Your task to perform on an android device: Open settings on Google Maps Image 0: 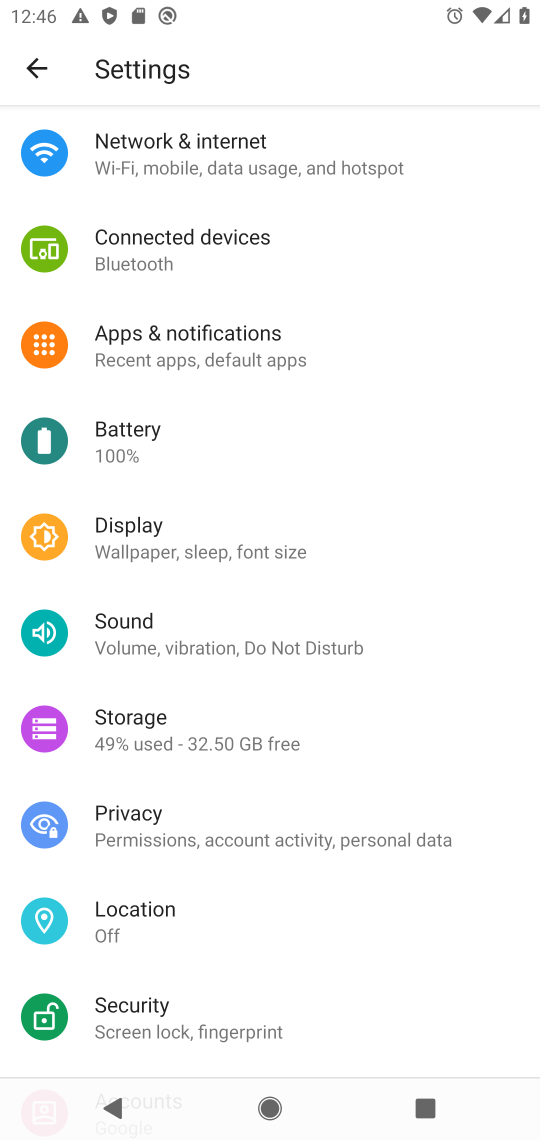
Step 0: press home button
Your task to perform on an android device: Open settings on Google Maps Image 1: 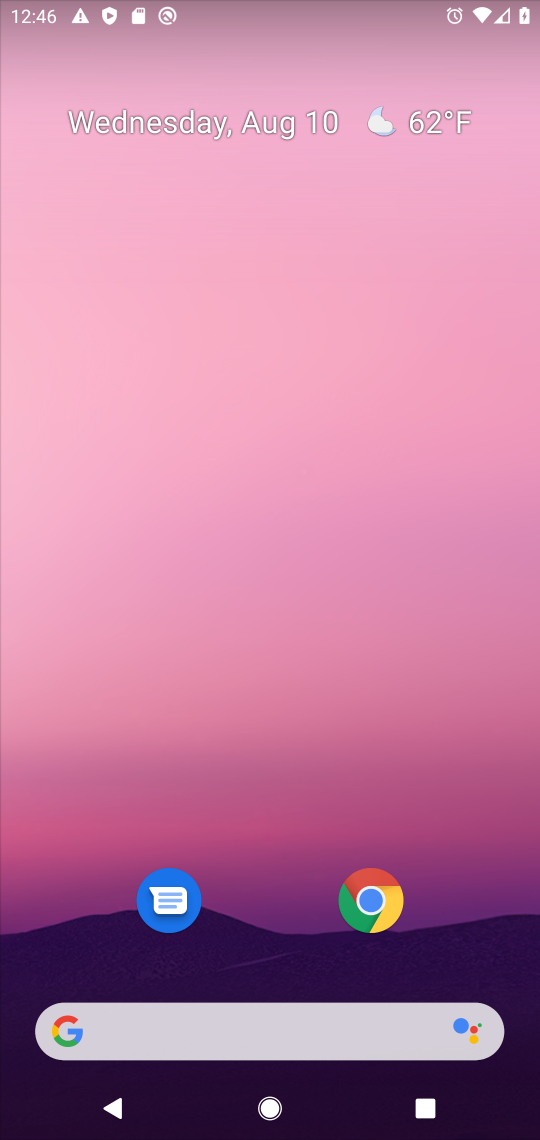
Step 1: drag from (290, 929) to (309, 0)
Your task to perform on an android device: Open settings on Google Maps Image 2: 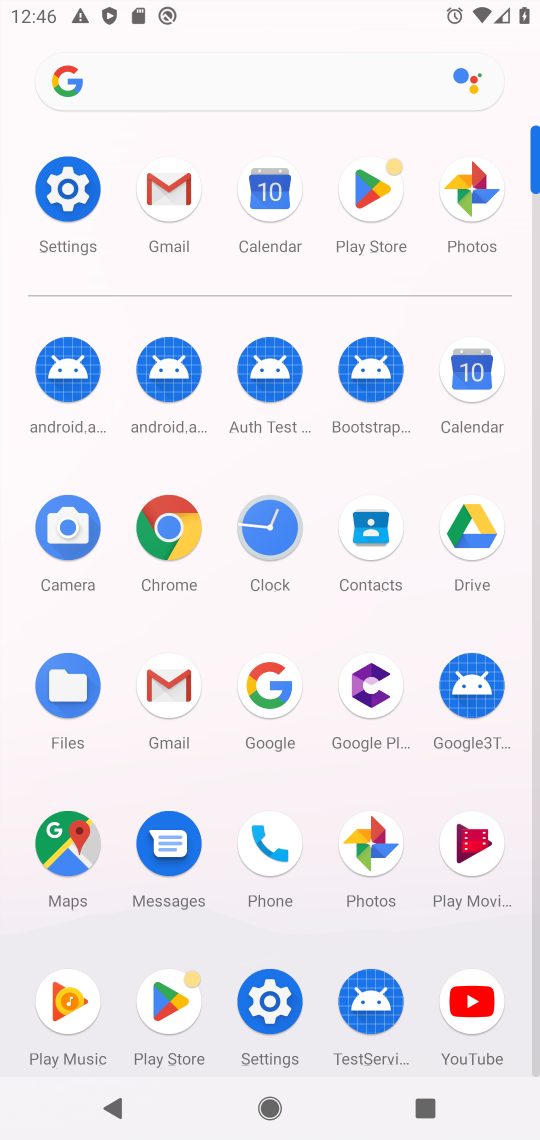
Step 2: drag from (323, 598) to (333, 147)
Your task to perform on an android device: Open settings on Google Maps Image 3: 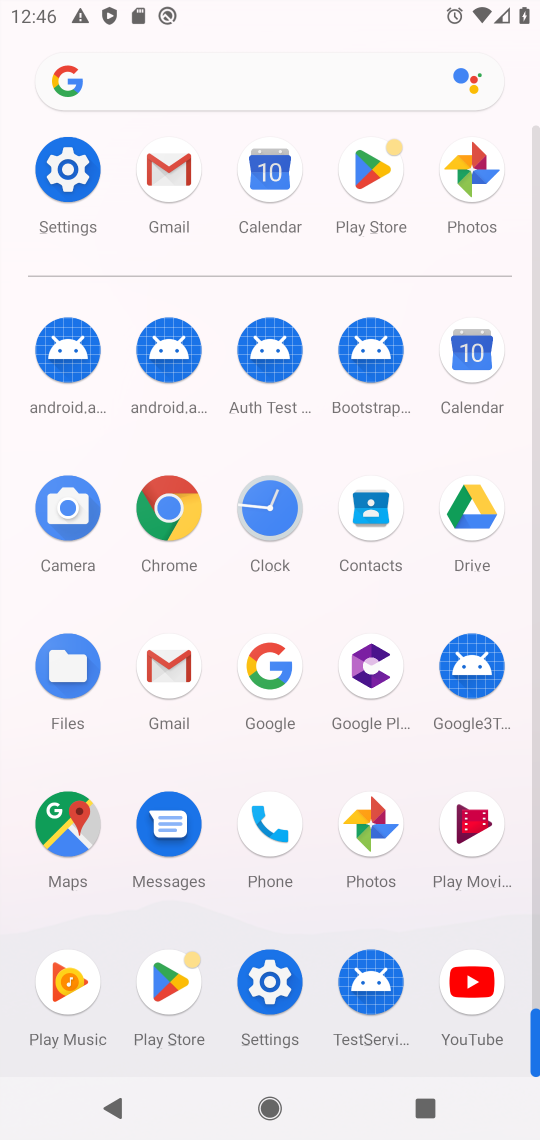
Step 3: click (70, 822)
Your task to perform on an android device: Open settings on Google Maps Image 4: 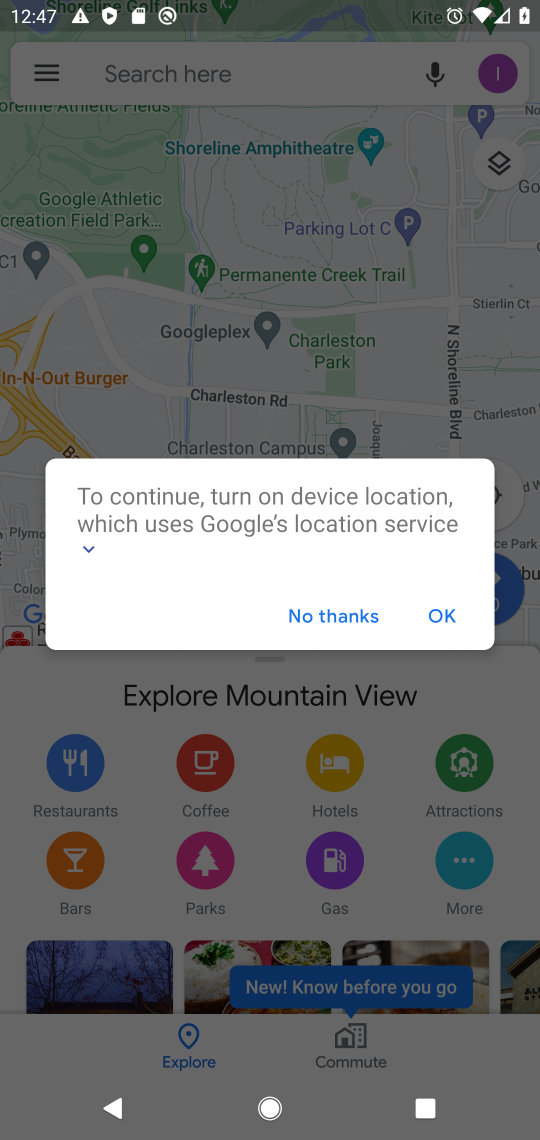
Step 4: click (434, 614)
Your task to perform on an android device: Open settings on Google Maps Image 5: 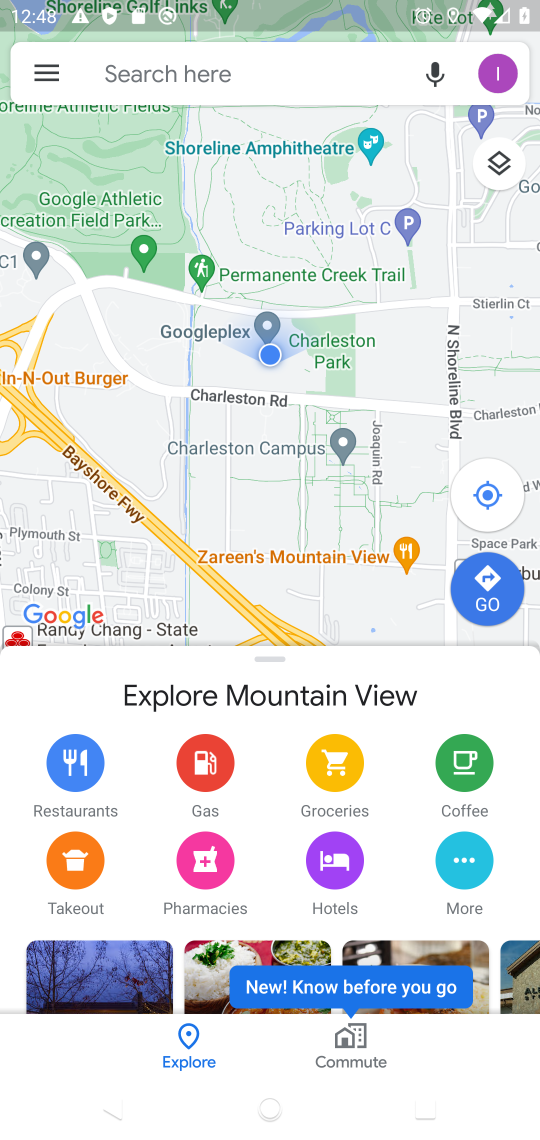
Step 5: click (53, 71)
Your task to perform on an android device: Open settings on Google Maps Image 6: 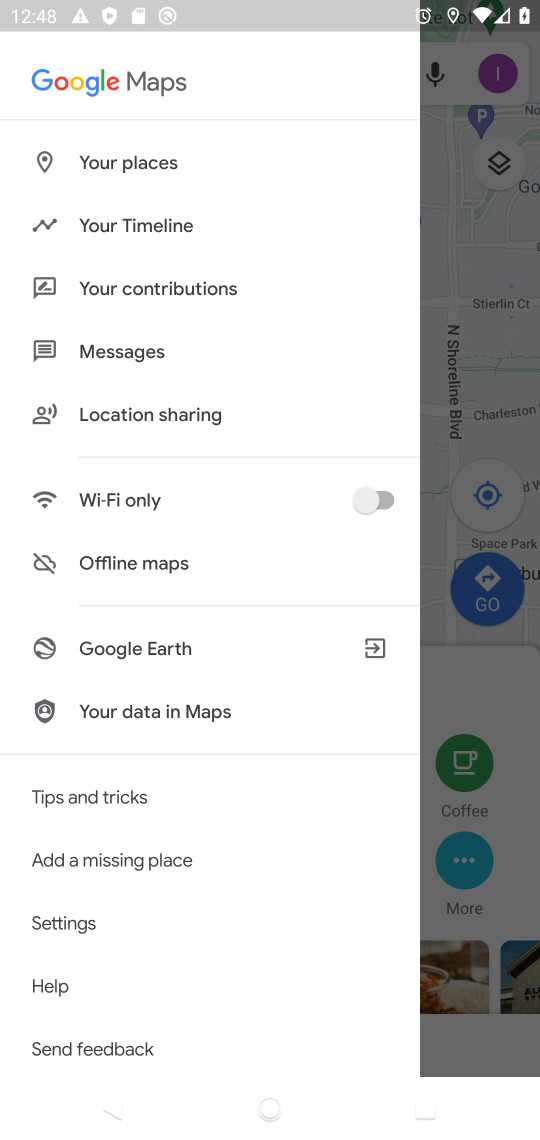
Step 6: click (107, 920)
Your task to perform on an android device: Open settings on Google Maps Image 7: 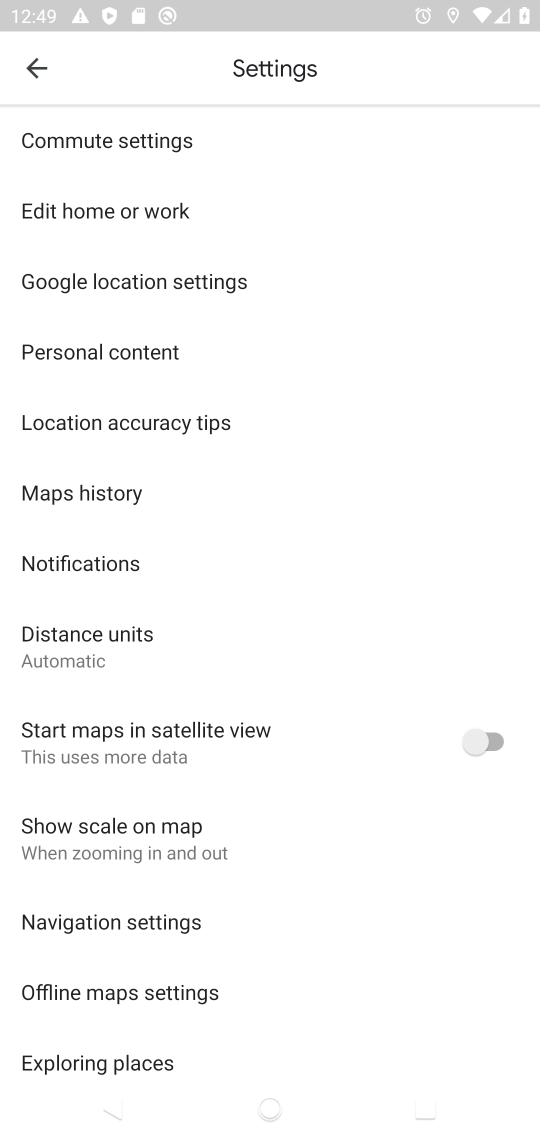
Step 7: task complete